Your task to perform on an android device: Open settings Image 0: 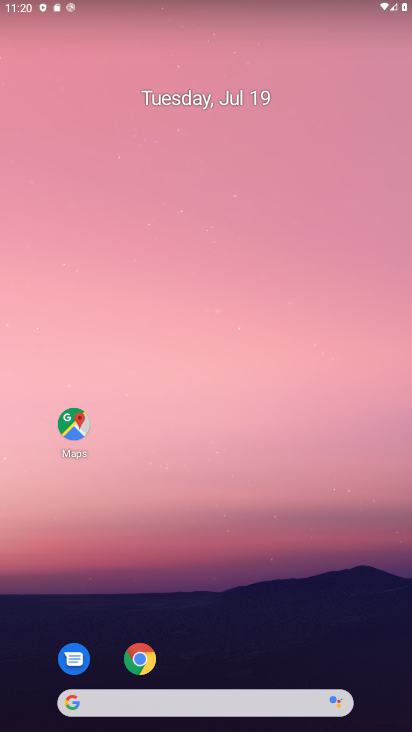
Step 0: press home button
Your task to perform on an android device: Open settings Image 1: 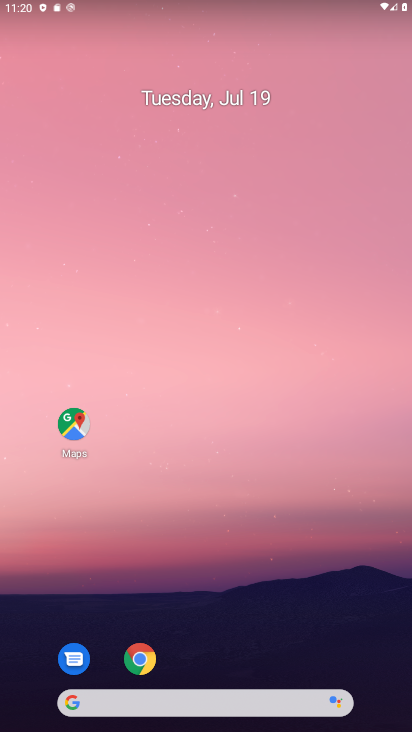
Step 1: drag from (215, 667) to (224, 54)
Your task to perform on an android device: Open settings Image 2: 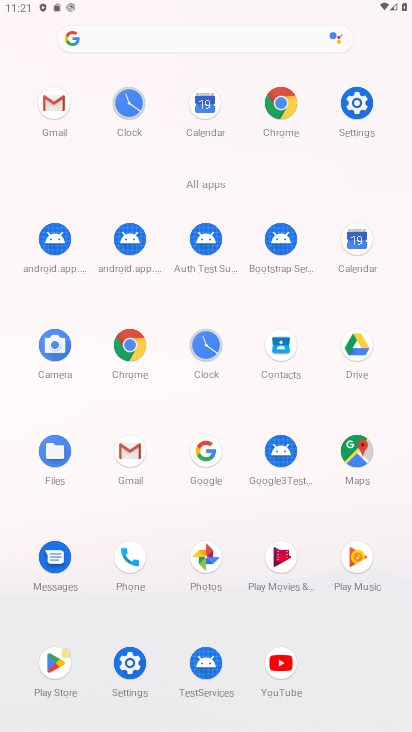
Step 2: click (353, 96)
Your task to perform on an android device: Open settings Image 3: 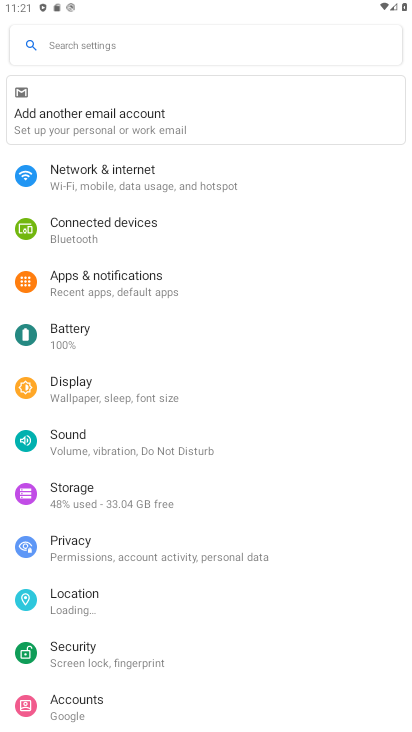
Step 3: task complete